Your task to perform on an android device: Go to accessibility settings Image 0: 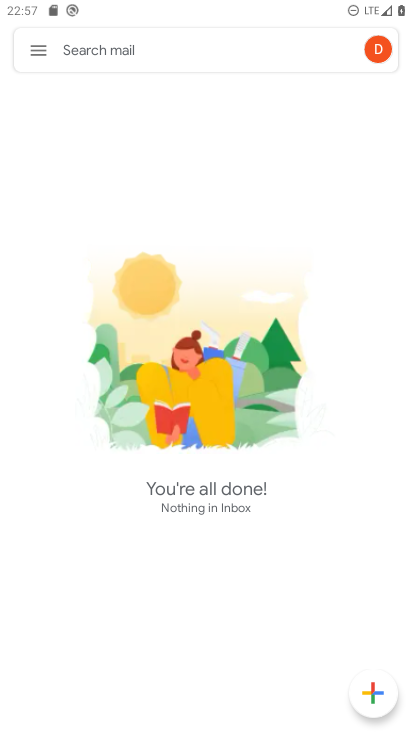
Step 0: press home button
Your task to perform on an android device: Go to accessibility settings Image 1: 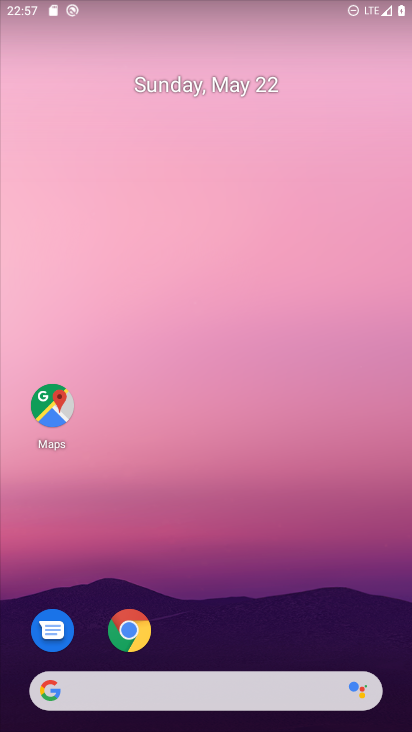
Step 1: drag from (148, 683) to (312, 54)
Your task to perform on an android device: Go to accessibility settings Image 2: 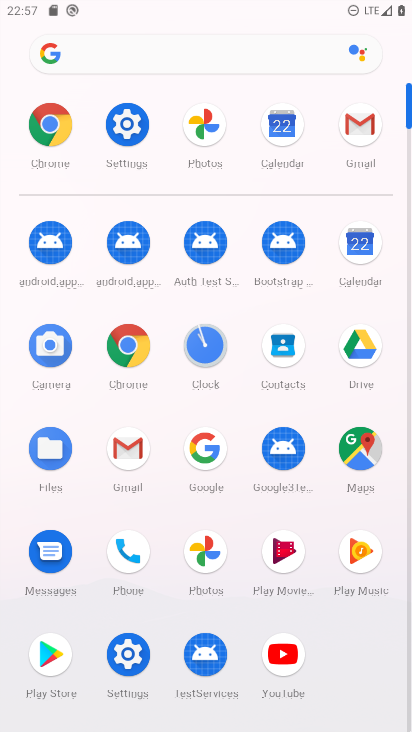
Step 2: click (135, 128)
Your task to perform on an android device: Go to accessibility settings Image 3: 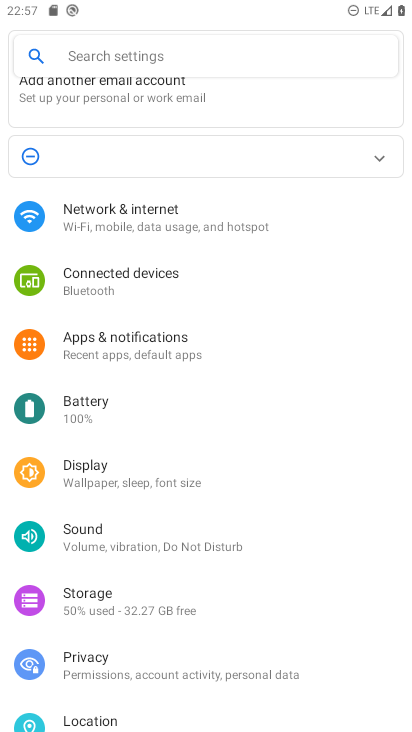
Step 3: drag from (292, 638) to (391, 114)
Your task to perform on an android device: Go to accessibility settings Image 4: 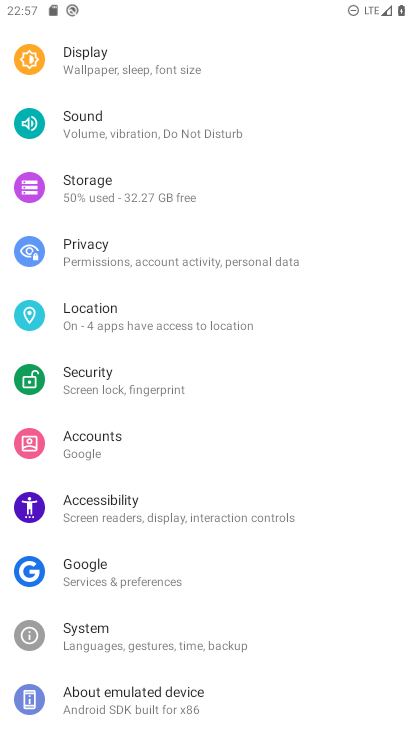
Step 4: click (129, 509)
Your task to perform on an android device: Go to accessibility settings Image 5: 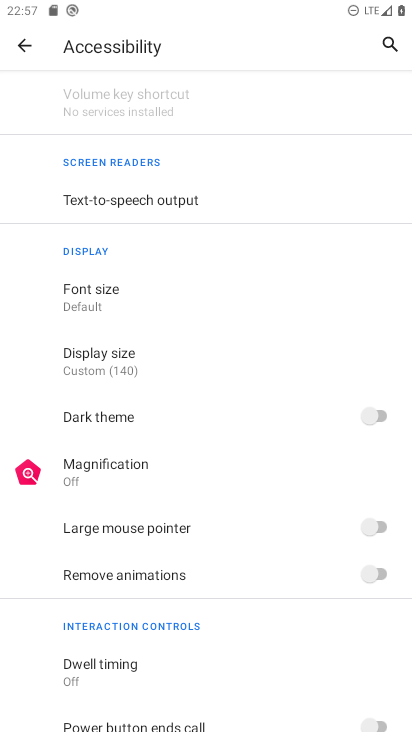
Step 5: task complete